Your task to perform on an android device: Open ESPN.com Image 0: 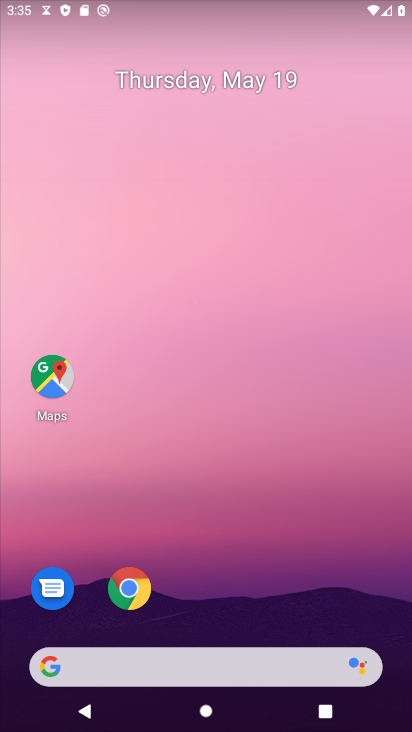
Step 0: click (139, 596)
Your task to perform on an android device: Open ESPN.com Image 1: 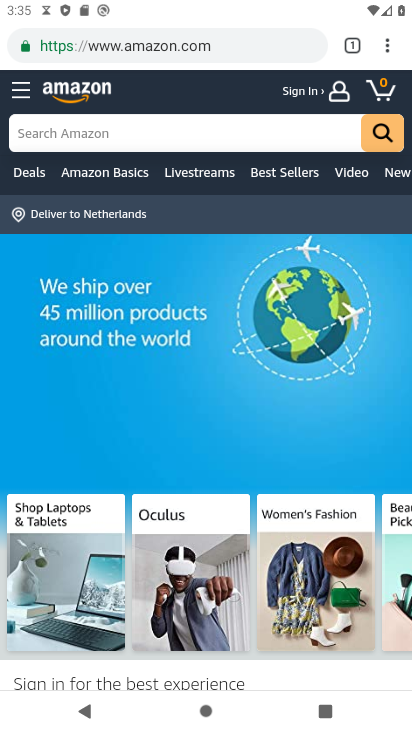
Step 1: click (163, 45)
Your task to perform on an android device: Open ESPN.com Image 2: 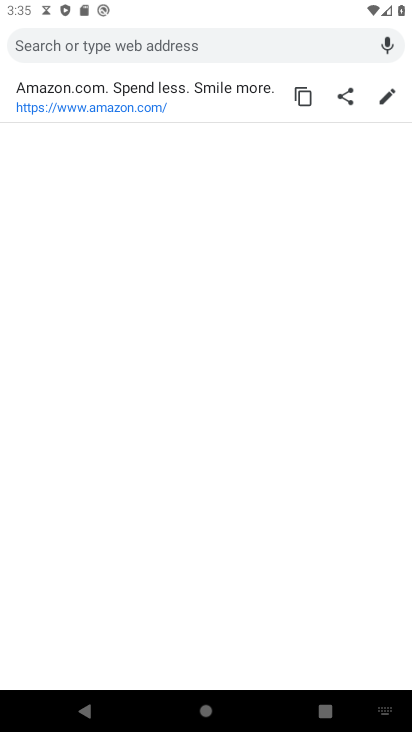
Step 2: type "ESPN.com"
Your task to perform on an android device: Open ESPN.com Image 3: 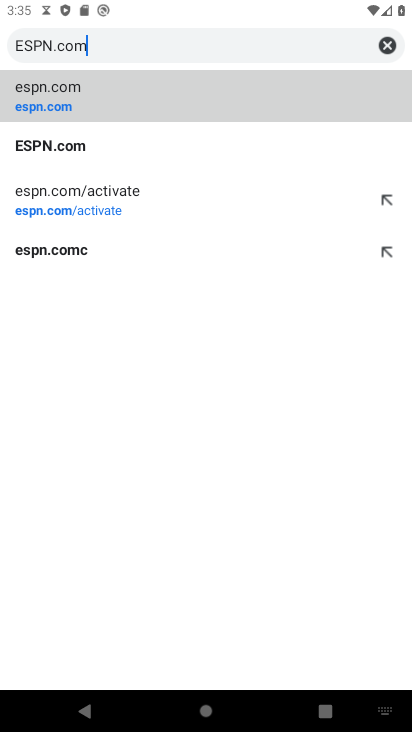
Step 3: click (70, 153)
Your task to perform on an android device: Open ESPN.com Image 4: 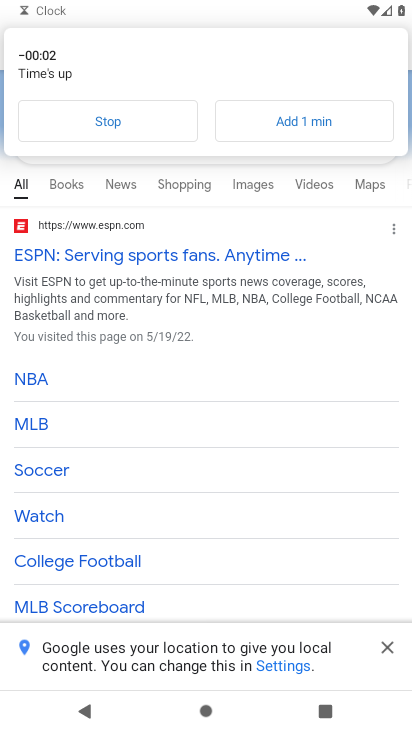
Step 4: task complete